Your task to perform on an android device: open app "DuckDuckGo Privacy Browser" Image 0: 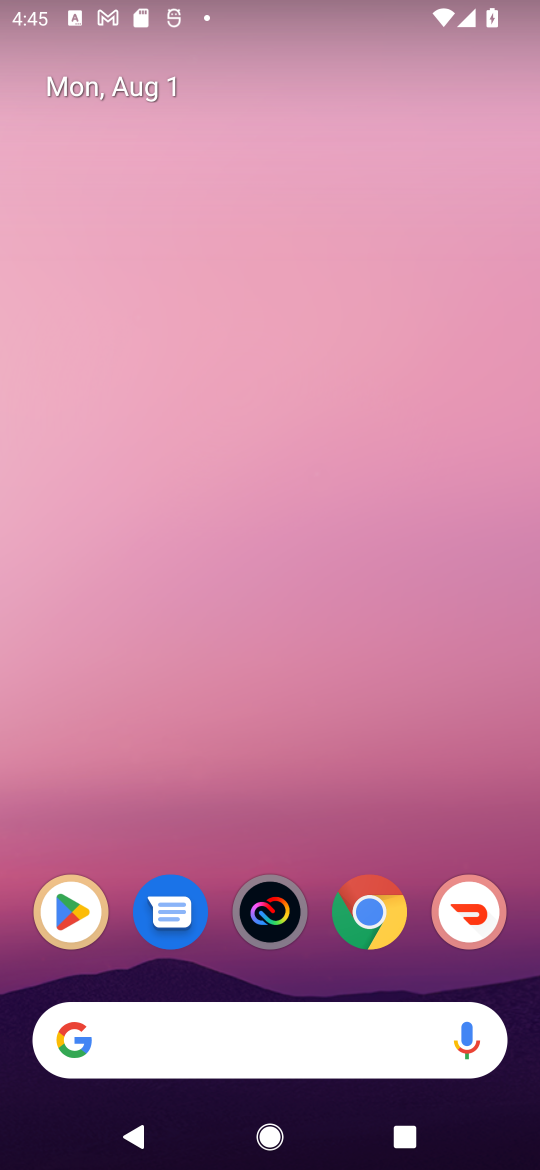
Step 0: click (56, 905)
Your task to perform on an android device: open app "DuckDuckGo Privacy Browser" Image 1: 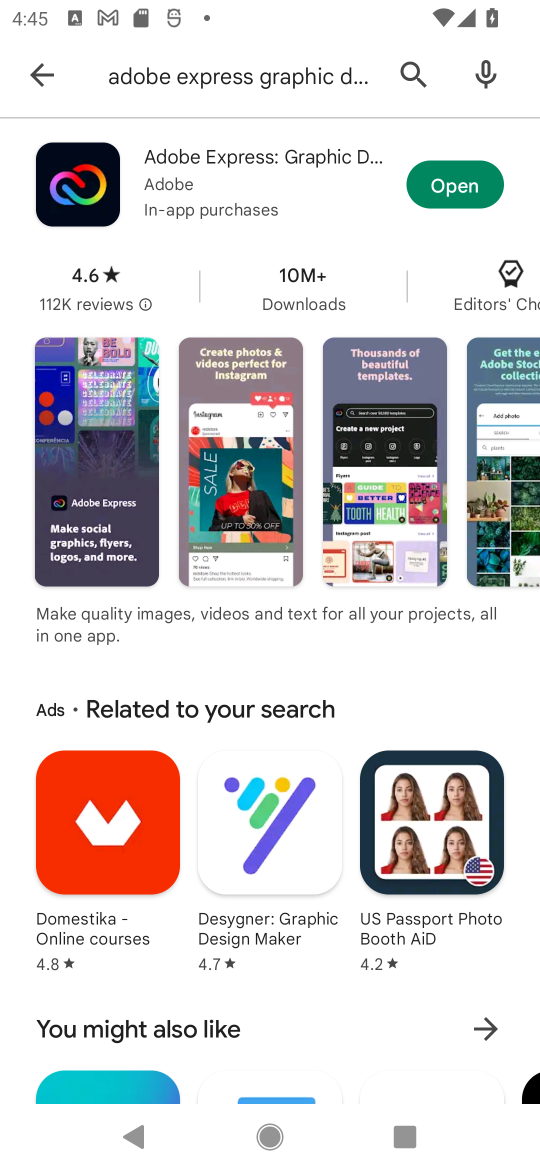
Step 1: click (418, 68)
Your task to perform on an android device: open app "DuckDuckGo Privacy Browser" Image 2: 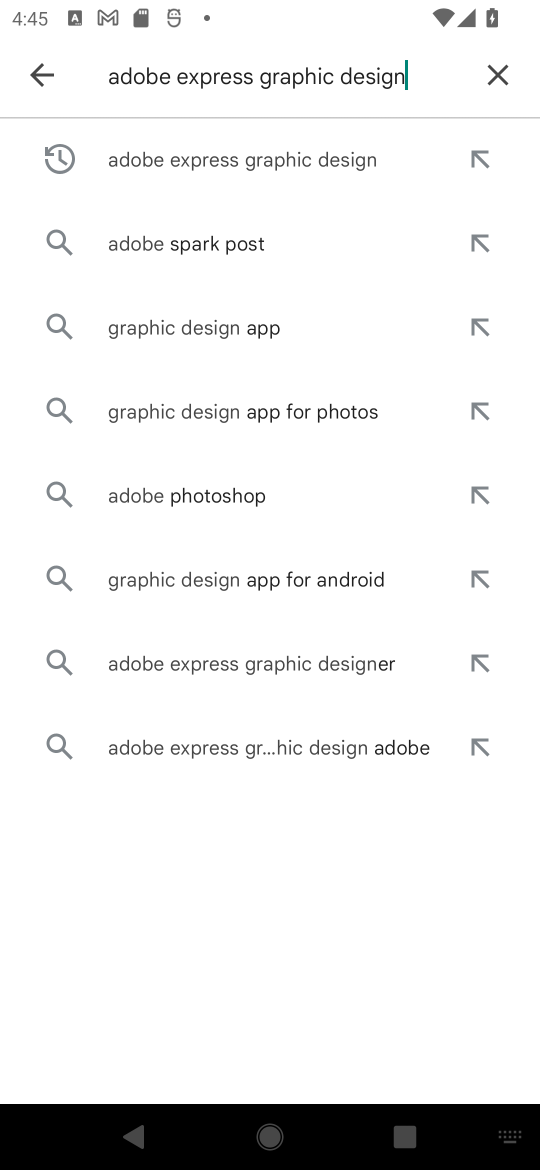
Step 2: click (489, 77)
Your task to perform on an android device: open app "DuckDuckGo Privacy Browser" Image 3: 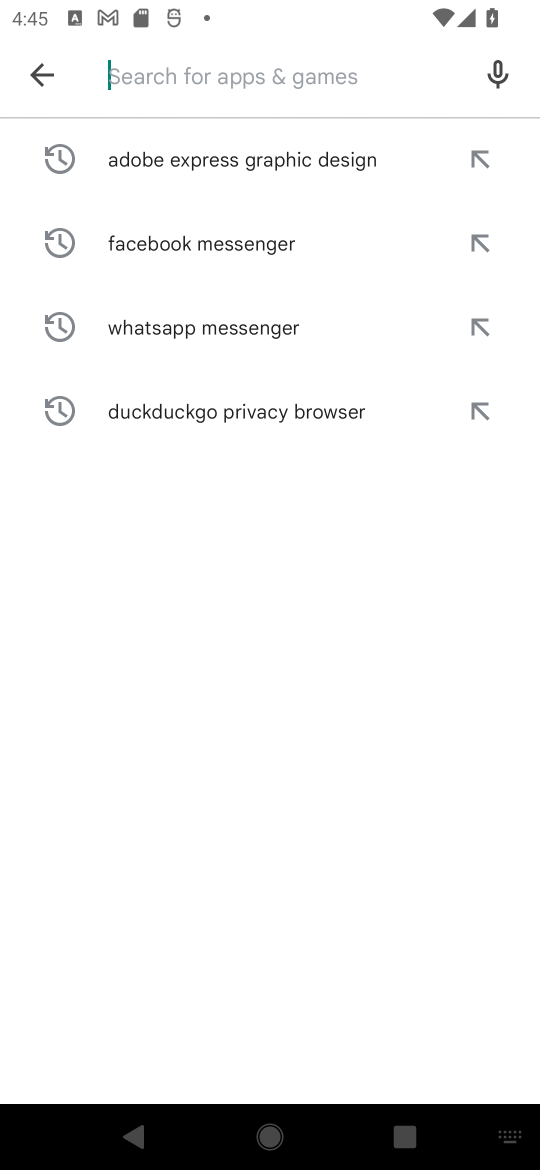
Step 3: type "DuckDuckGo Privacy Browser"
Your task to perform on an android device: open app "DuckDuckGo Privacy Browser" Image 4: 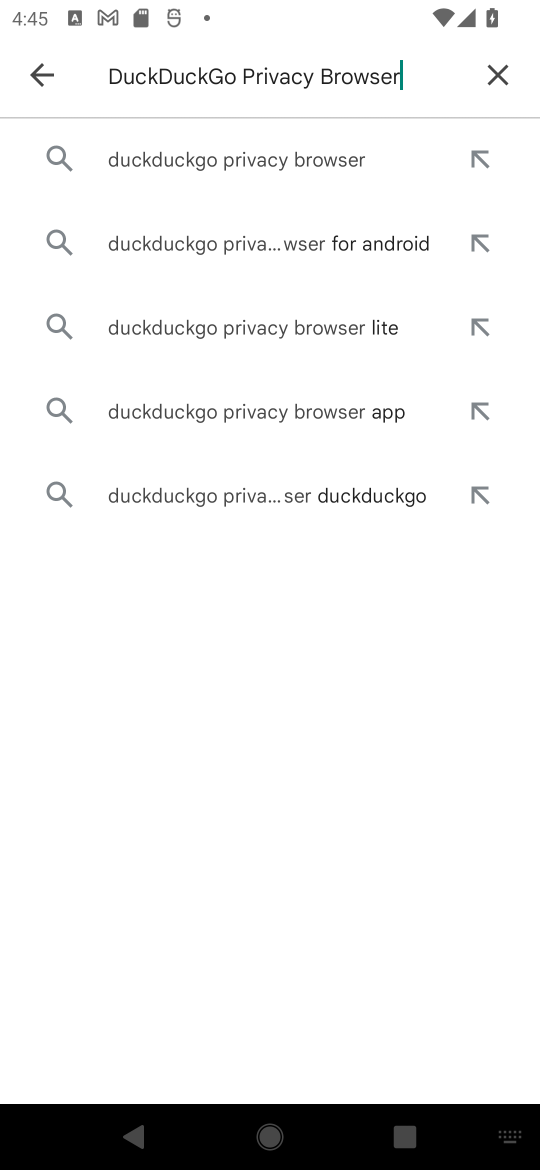
Step 4: click (160, 166)
Your task to perform on an android device: open app "DuckDuckGo Privacy Browser" Image 5: 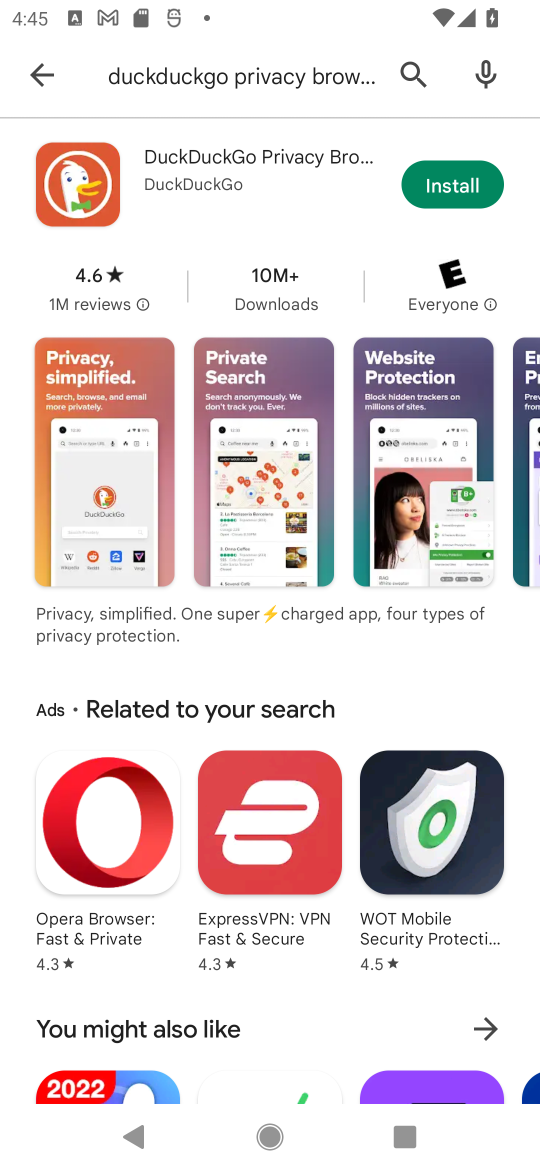
Step 5: task complete